Your task to perform on an android device: check the backup settings in the google photos Image 0: 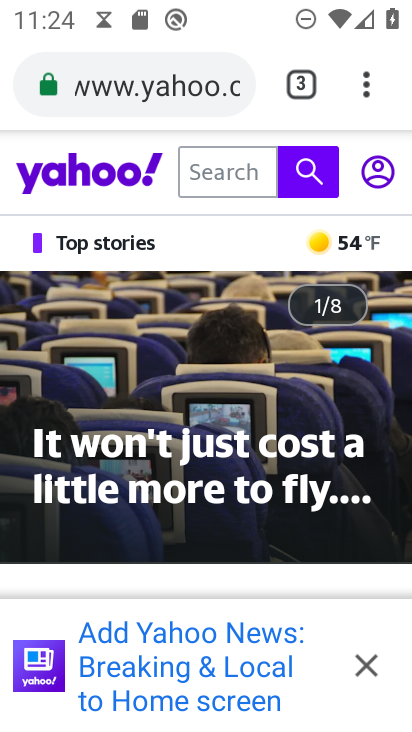
Step 0: press home button
Your task to perform on an android device: check the backup settings in the google photos Image 1: 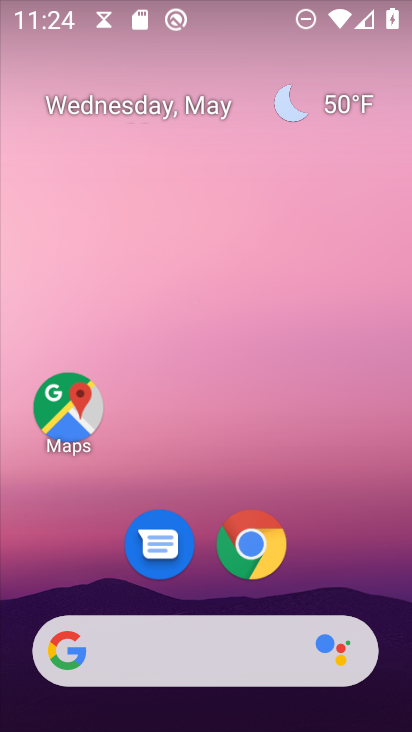
Step 1: drag from (199, 582) to (212, 57)
Your task to perform on an android device: check the backup settings in the google photos Image 2: 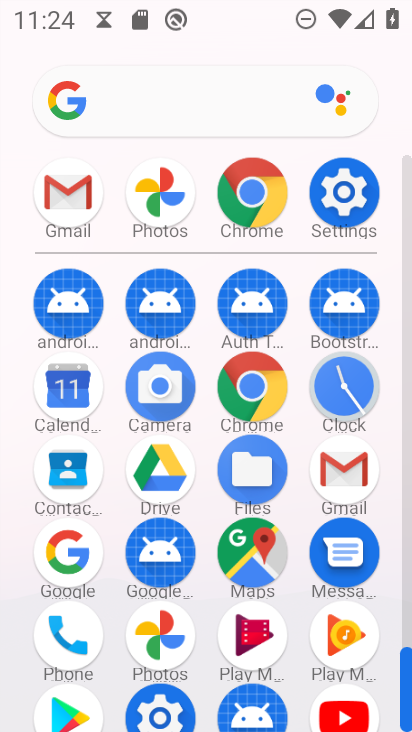
Step 2: click (346, 190)
Your task to perform on an android device: check the backup settings in the google photos Image 3: 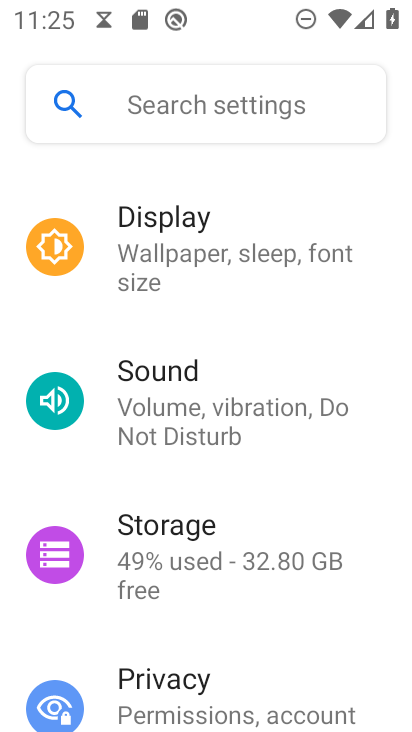
Step 3: press home button
Your task to perform on an android device: check the backup settings in the google photos Image 4: 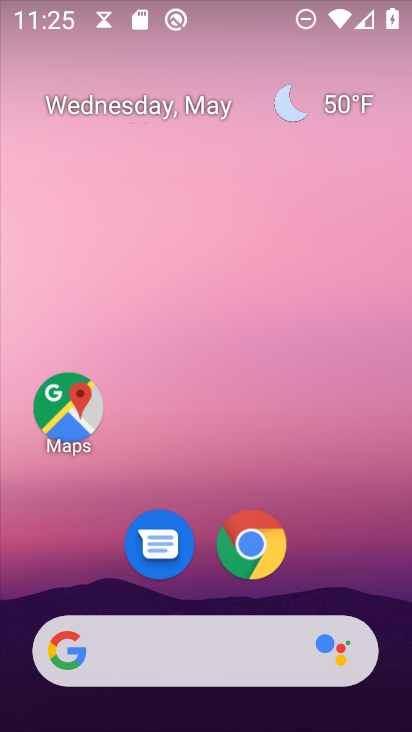
Step 4: drag from (214, 602) to (374, 79)
Your task to perform on an android device: check the backup settings in the google photos Image 5: 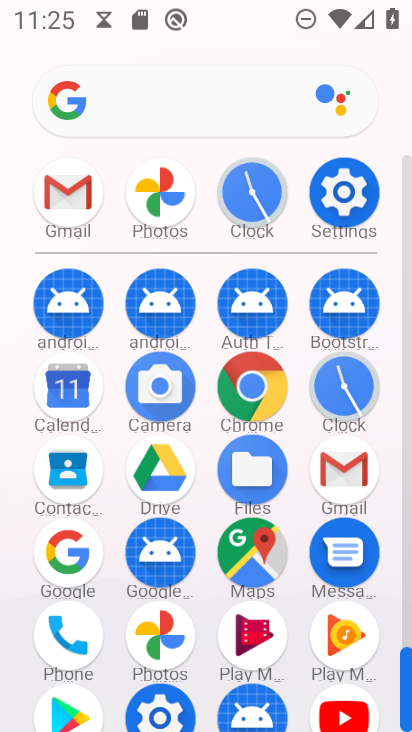
Step 5: click (149, 190)
Your task to perform on an android device: check the backup settings in the google photos Image 6: 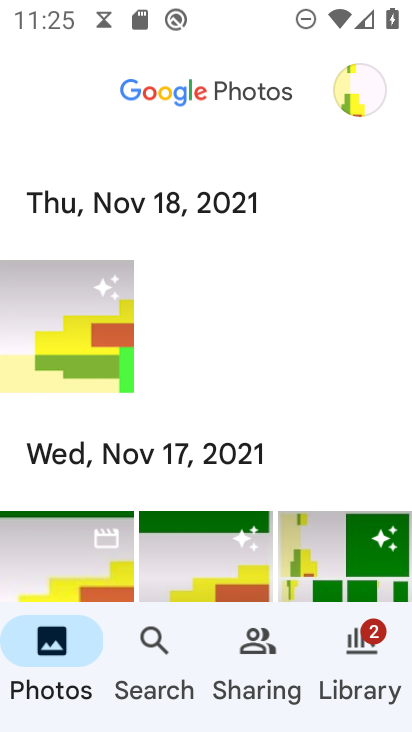
Step 6: click (149, 190)
Your task to perform on an android device: check the backup settings in the google photos Image 7: 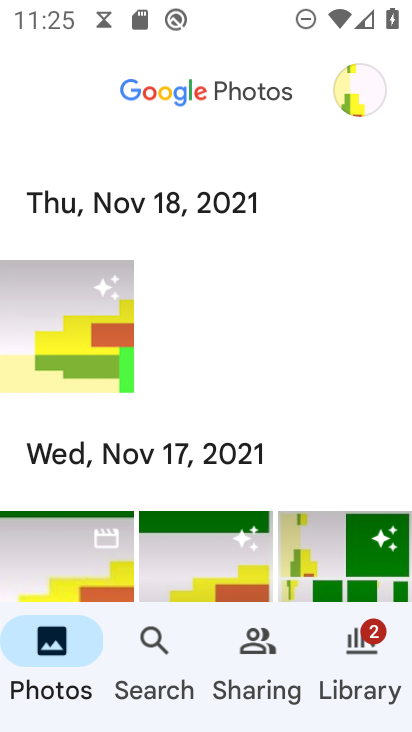
Step 7: click (347, 85)
Your task to perform on an android device: check the backup settings in the google photos Image 8: 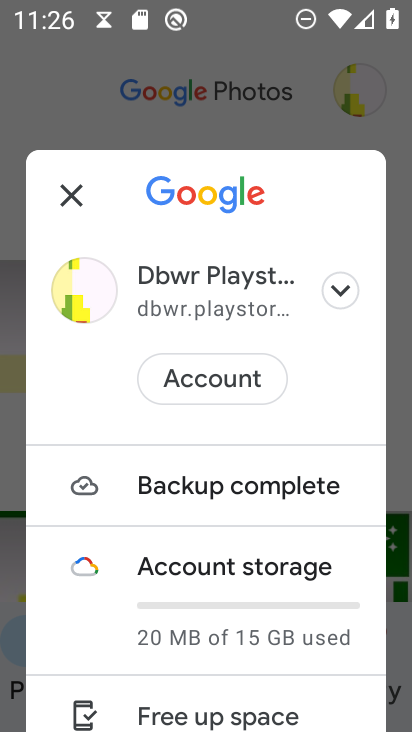
Step 8: drag from (179, 568) to (262, 168)
Your task to perform on an android device: check the backup settings in the google photos Image 9: 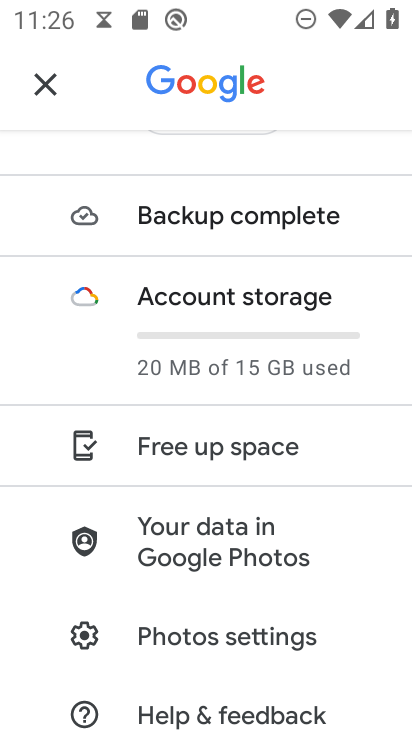
Step 9: click (250, 247)
Your task to perform on an android device: check the backup settings in the google photos Image 10: 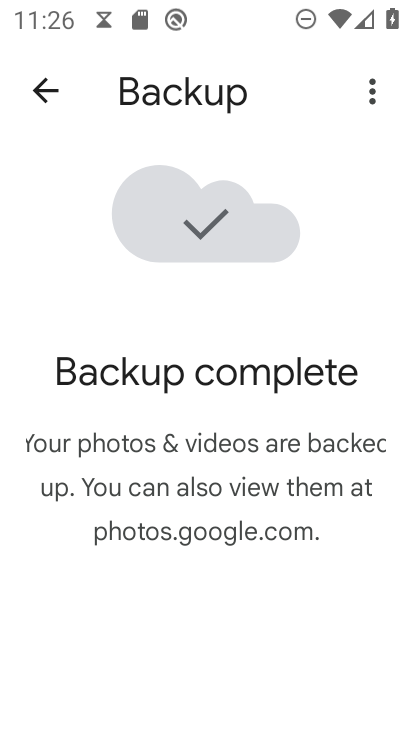
Step 10: task complete